Your task to perform on an android device: Open Yahoo.com Image 0: 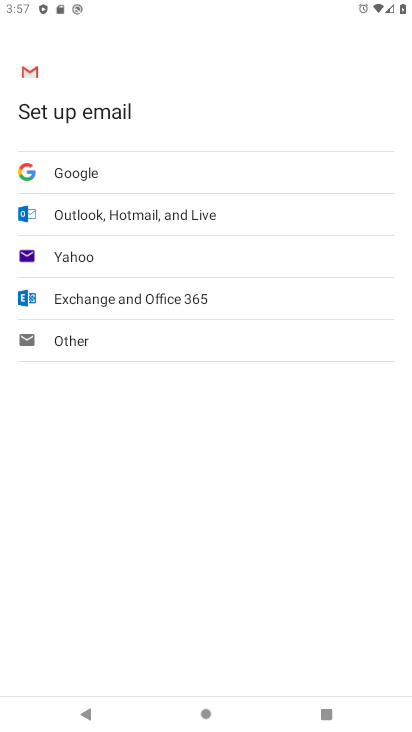
Step 0: press home button
Your task to perform on an android device: Open Yahoo.com Image 1: 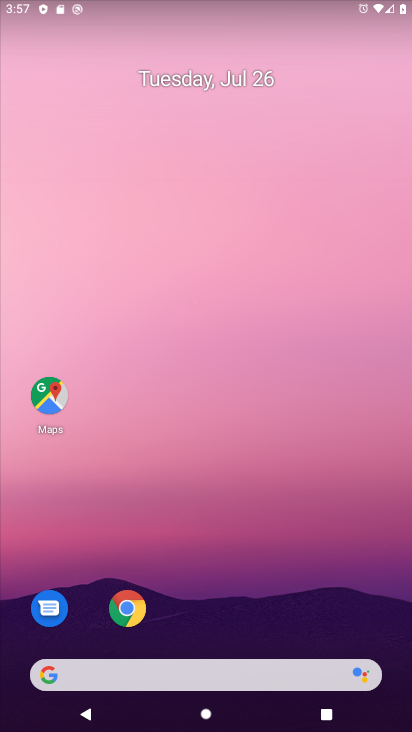
Step 1: drag from (383, 710) to (379, 228)
Your task to perform on an android device: Open Yahoo.com Image 2: 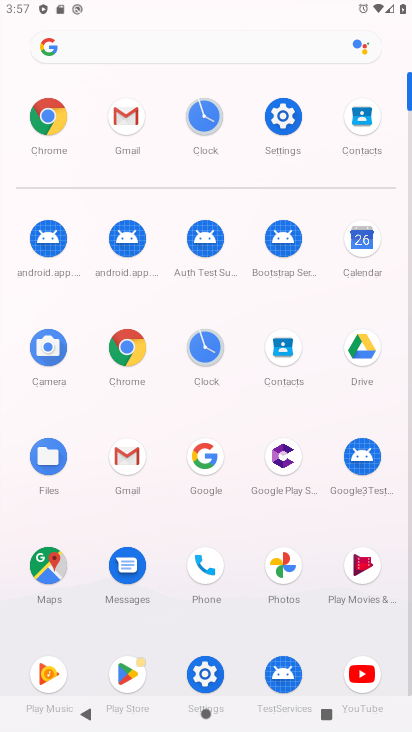
Step 2: click (128, 349)
Your task to perform on an android device: Open Yahoo.com Image 3: 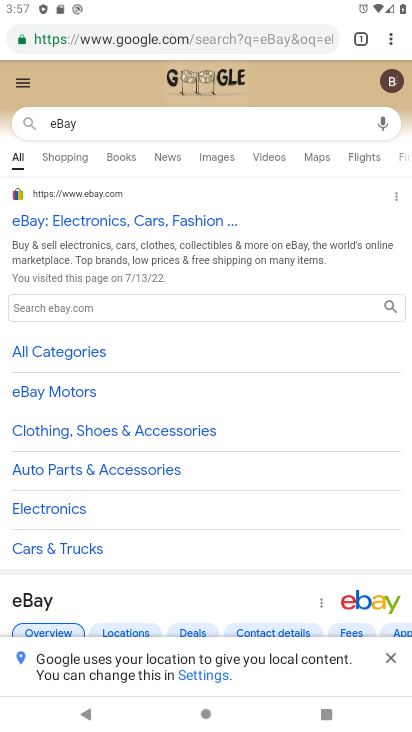
Step 3: click (316, 27)
Your task to perform on an android device: Open Yahoo.com Image 4: 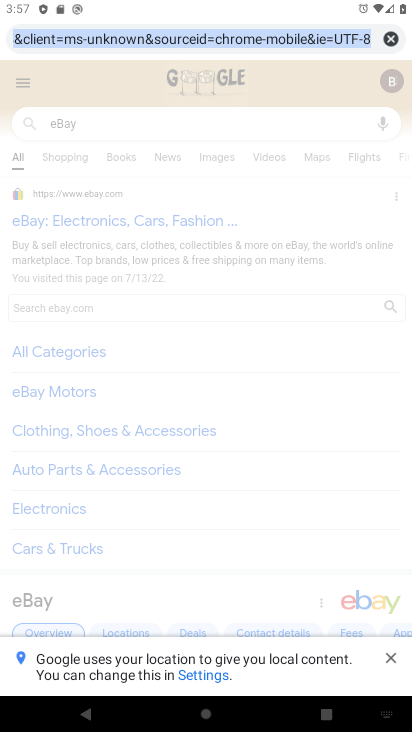
Step 4: click (382, 37)
Your task to perform on an android device: Open Yahoo.com Image 5: 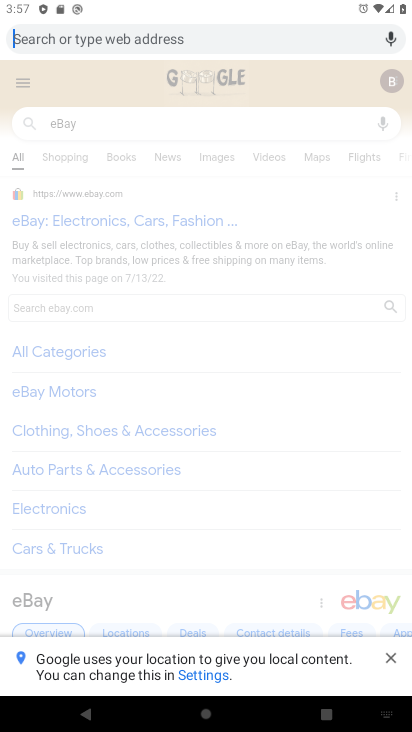
Step 5: type "Yahoo.com"
Your task to perform on an android device: Open Yahoo.com Image 6: 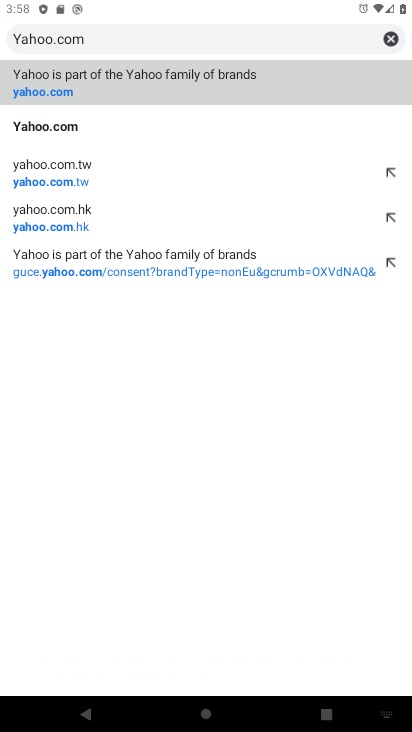
Step 6: click (47, 130)
Your task to perform on an android device: Open Yahoo.com Image 7: 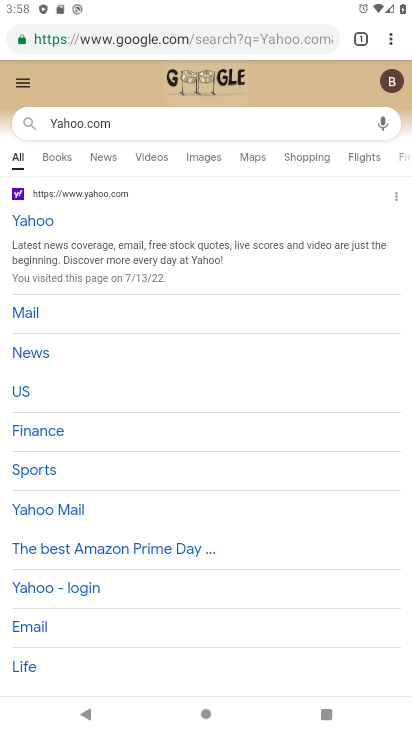
Step 7: task complete